Your task to perform on an android device: toggle data saver in the chrome app Image 0: 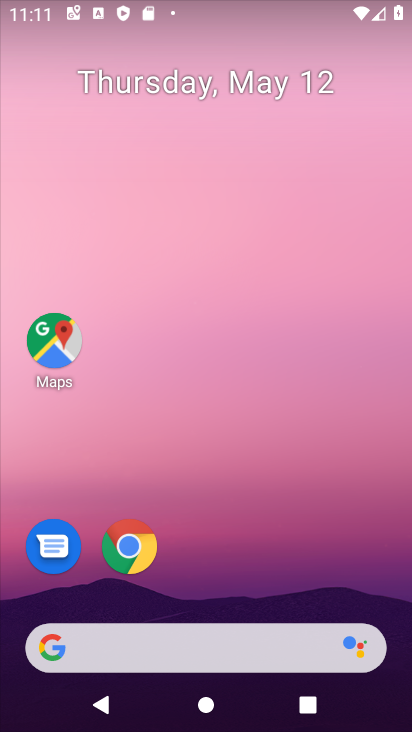
Step 0: drag from (313, 673) to (232, 148)
Your task to perform on an android device: toggle data saver in the chrome app Image 1: 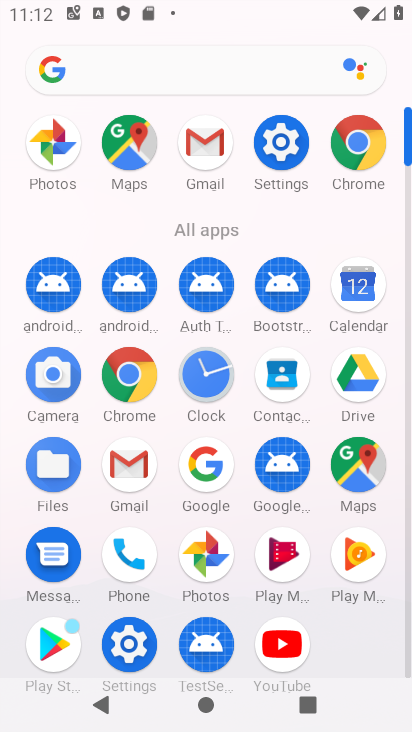
Step 1: click (141, 373)
Your task to perform on an android device: toggle data saver in the chrome app Image 2: 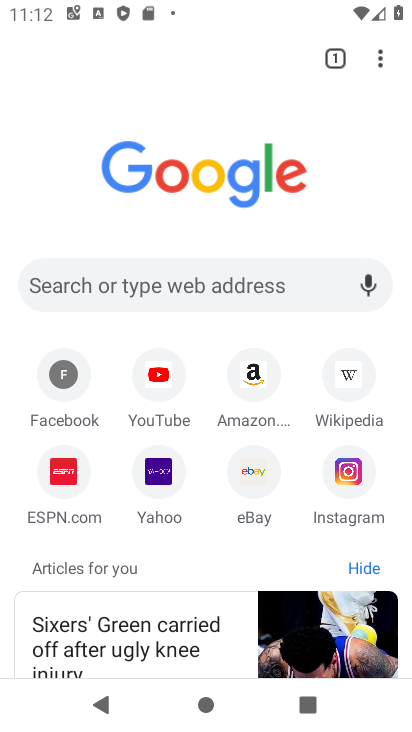
Step 2: click (389, 73)
Your task to perform on an android device: toggle data saver in the chrome app Image 3: 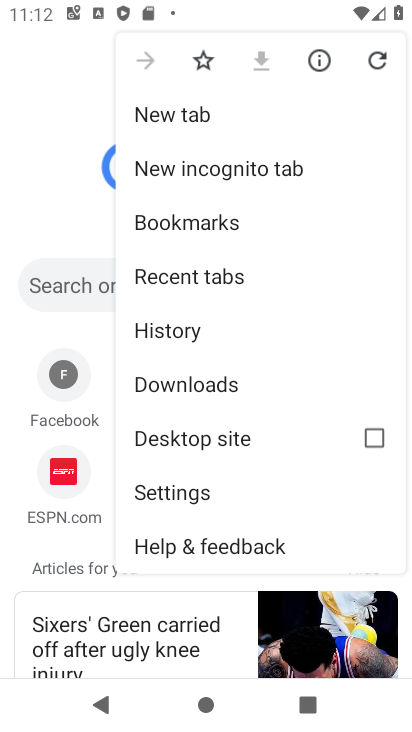
Step 3: click (207, 487)
Your task to perform on an android device: toggle data saver in the chrome app Image 4: 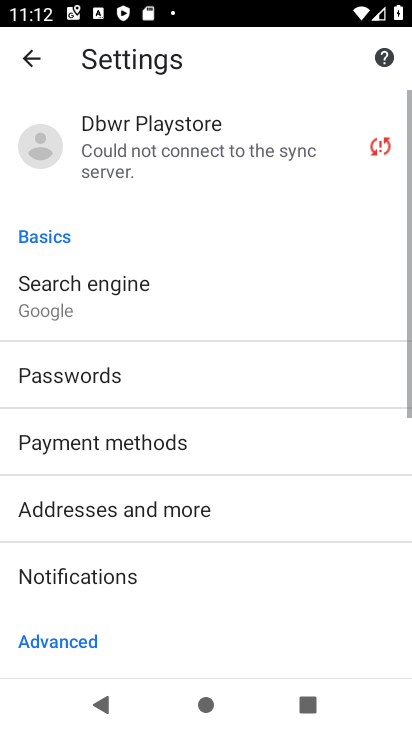
Step 4: drag from (179, 585) to (218, 343)
Your task to perform on an android device: toggle data saver in the chrome app Image 5: 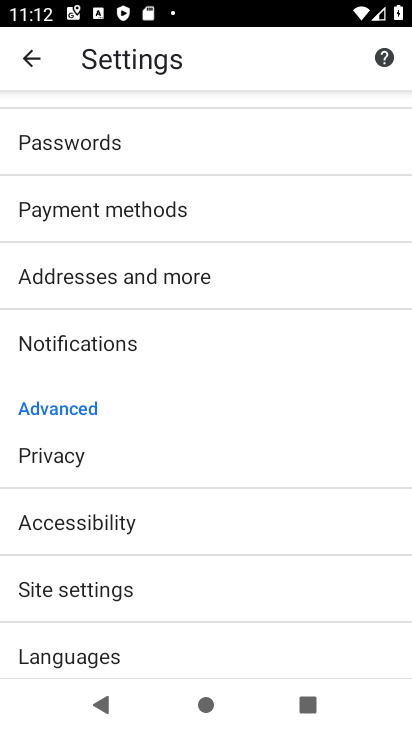
Step 5: drag from (92, 631) to (147, 459)
Your task to perform on an android device: toggle data saver in the chrome app Image 6: 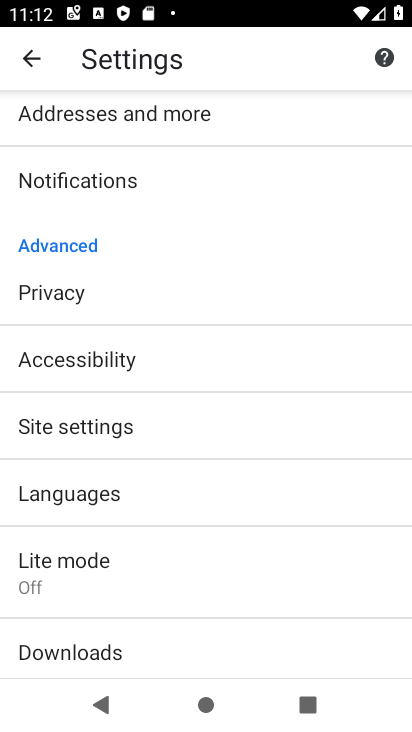
Step 6: click (69, 564)
Your task to perform on an android device: toggle data saver in the chrome app Image 7: 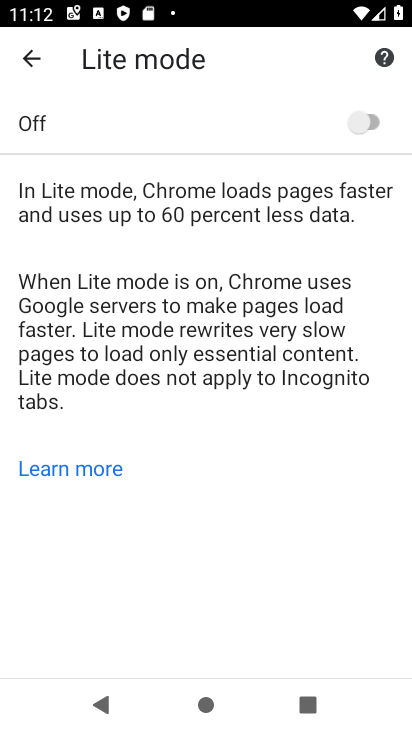
Step 7: task complete